Your task to perform on an android device: turn on airplane mode Image 0: 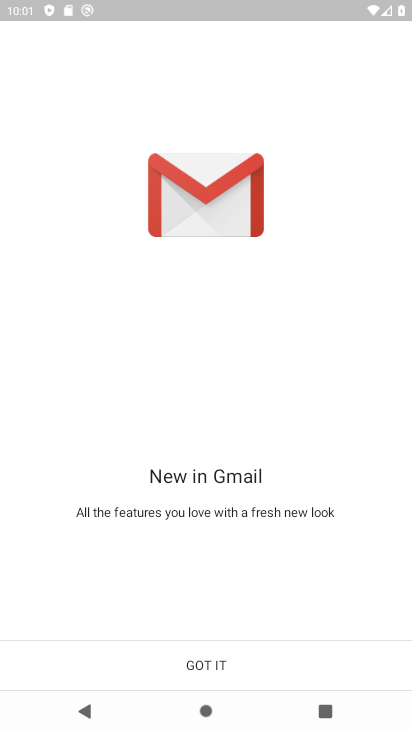
Step 0: press back button
Your task to perform on an android device: turn on airplane mode Image 1: 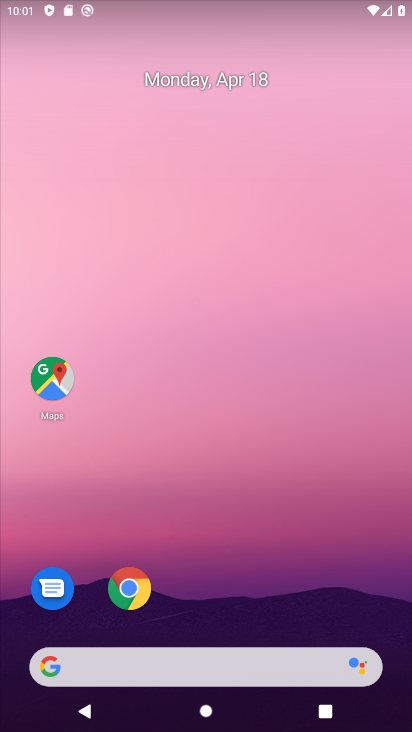
Step 1: drag from (140, 673) to (142, 397)
Your task to perform on an android device: turn on airplane mode Image 2: 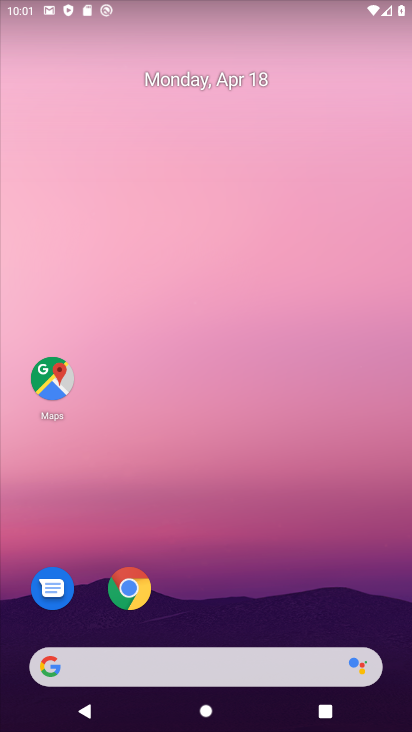
Step 2: drag from (174, 647) to (148, 315)
Your task to perform on an android device: turn on airplane mode Image 3: 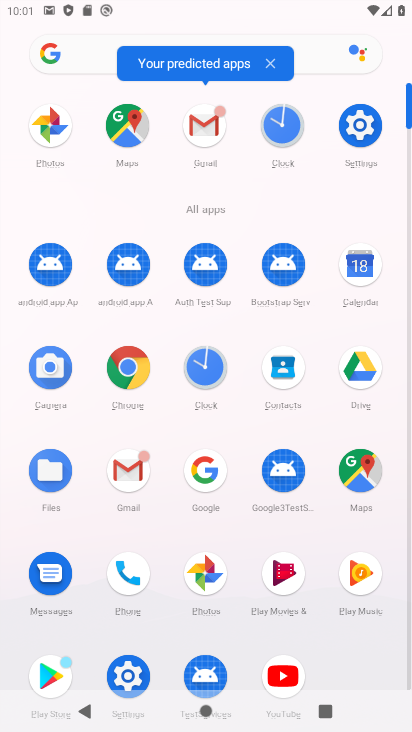
Step 3: click (347, 121)
Your task to perform on an android device: turn on airplane mode Image 4: 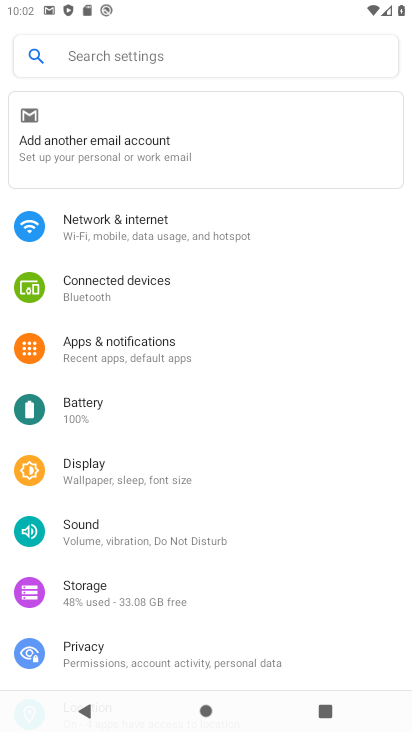
Step 4: click (152, 225)
Your task to perform on an android device: turn on airplane mode Image 5: 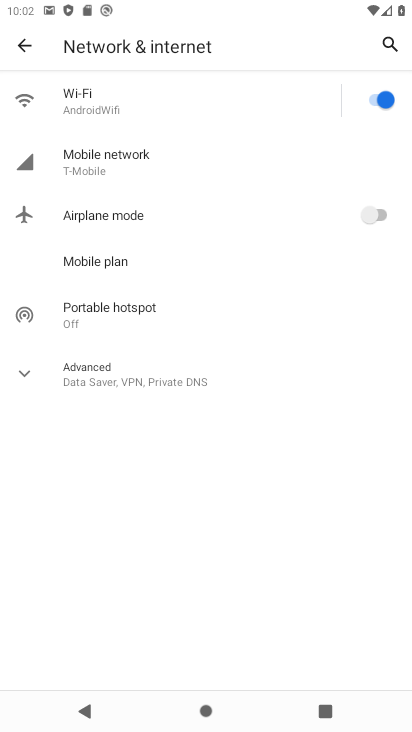
Step 5: click (379, 222)
Your task to perform on an android device: turn on airplane mode Image 6: 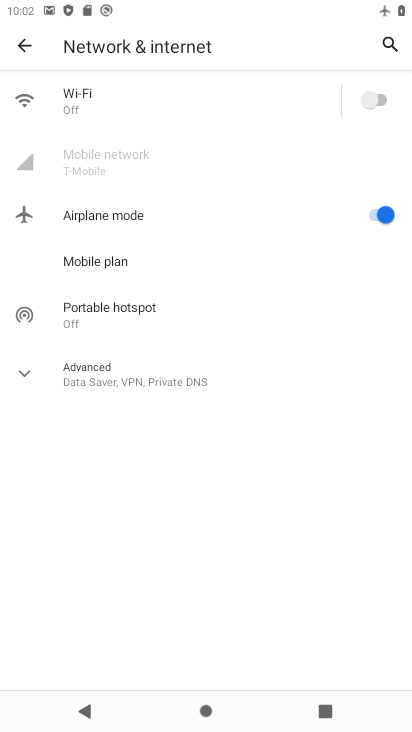
Step 6: task complete